Your task to perform on an android device: Show the shopping cart on ebay.com. Image 0: 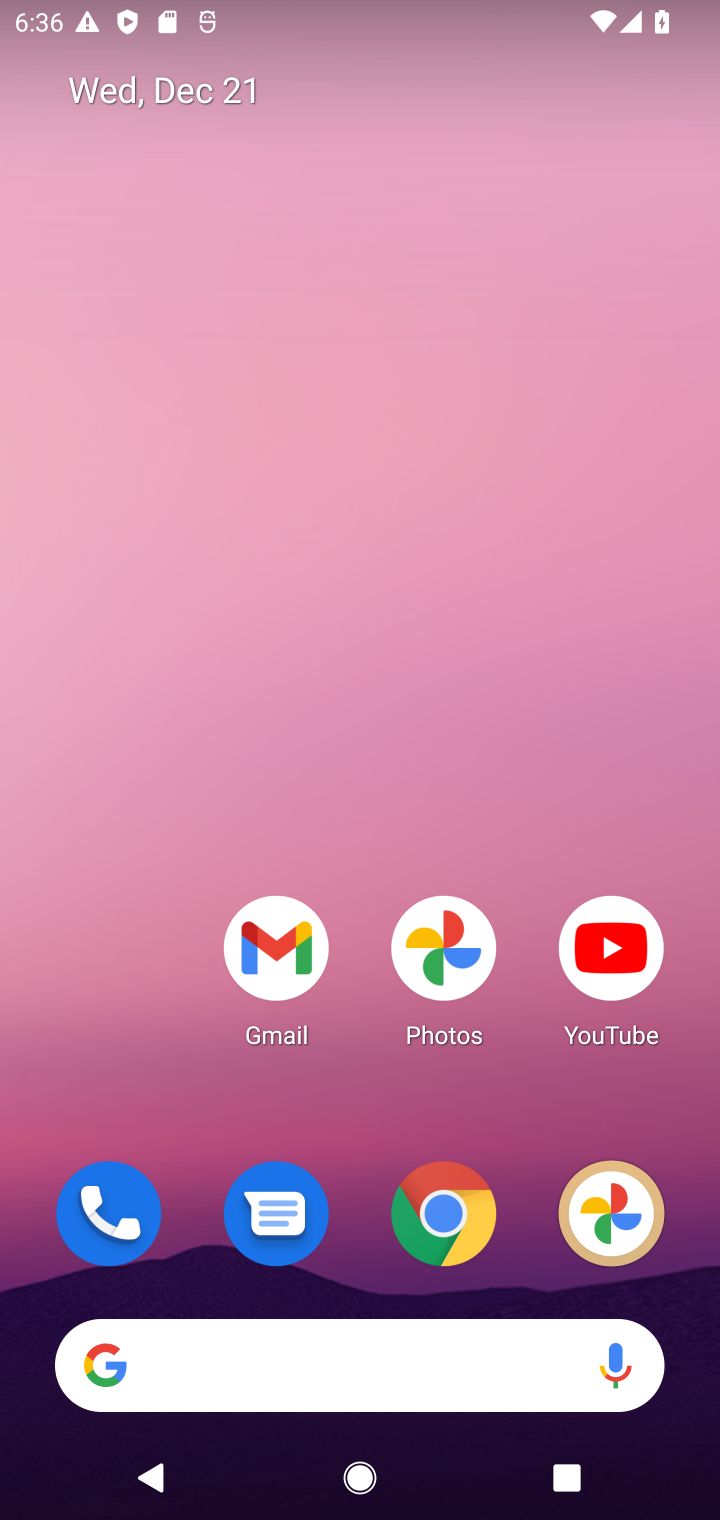
Step 0: click (436, 1256)
Your task to perform on an android device: Show the shopping cart on ebay.com. Image 1: 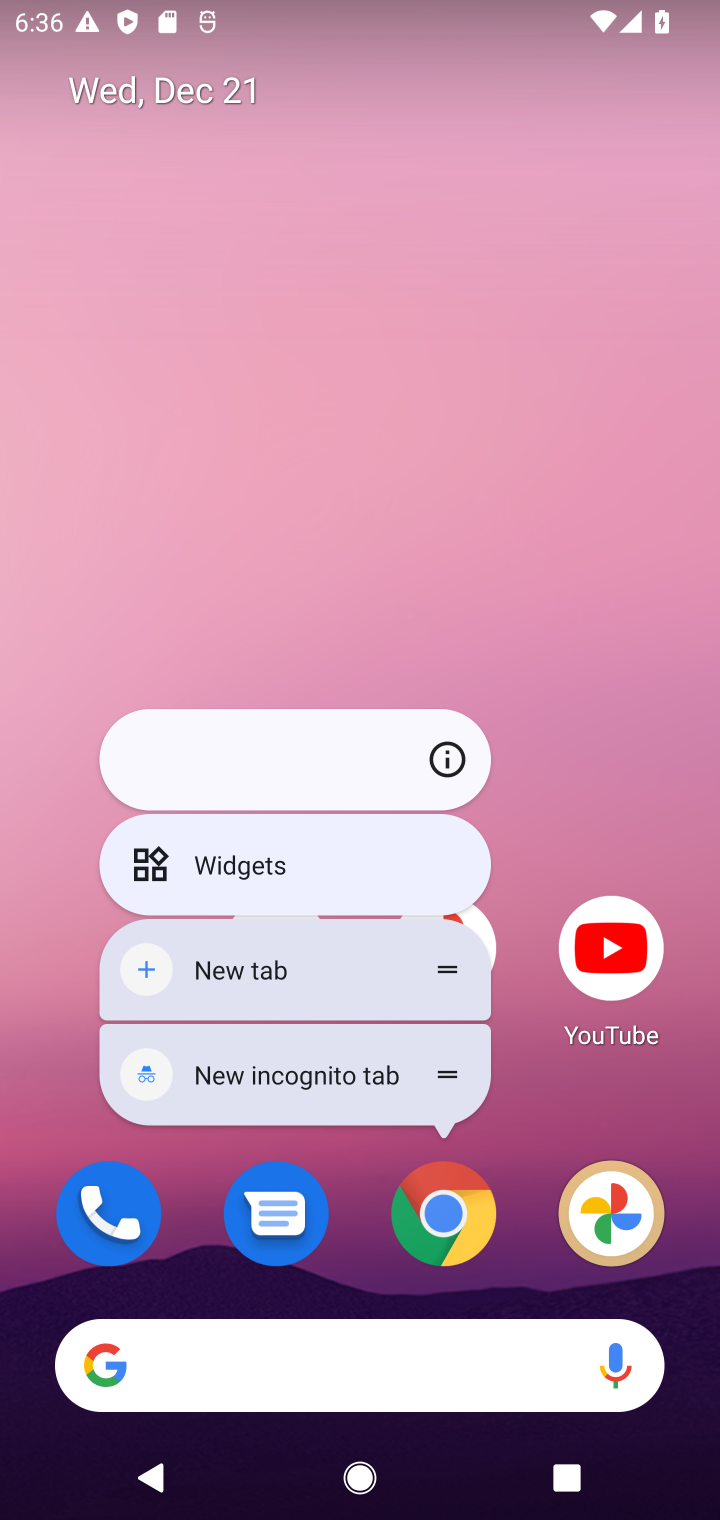
Step 1: click (436, 1256)
Your task to perform on an android device: Show the shopping cart on ebay.com. Image 2: 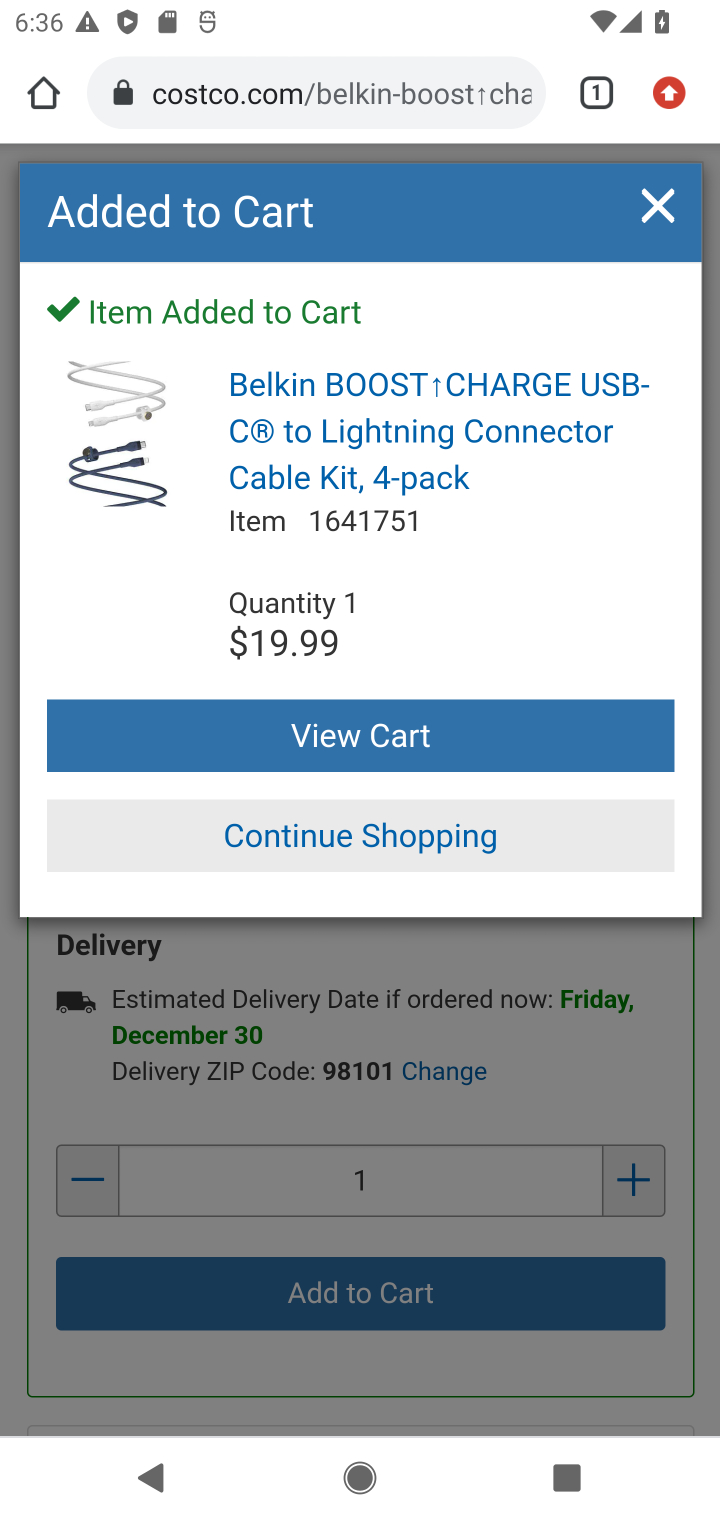
Step 2: click (313, 77)
Your task to perform on an android device: Show the shopping cart on ebay.com. Image 3: 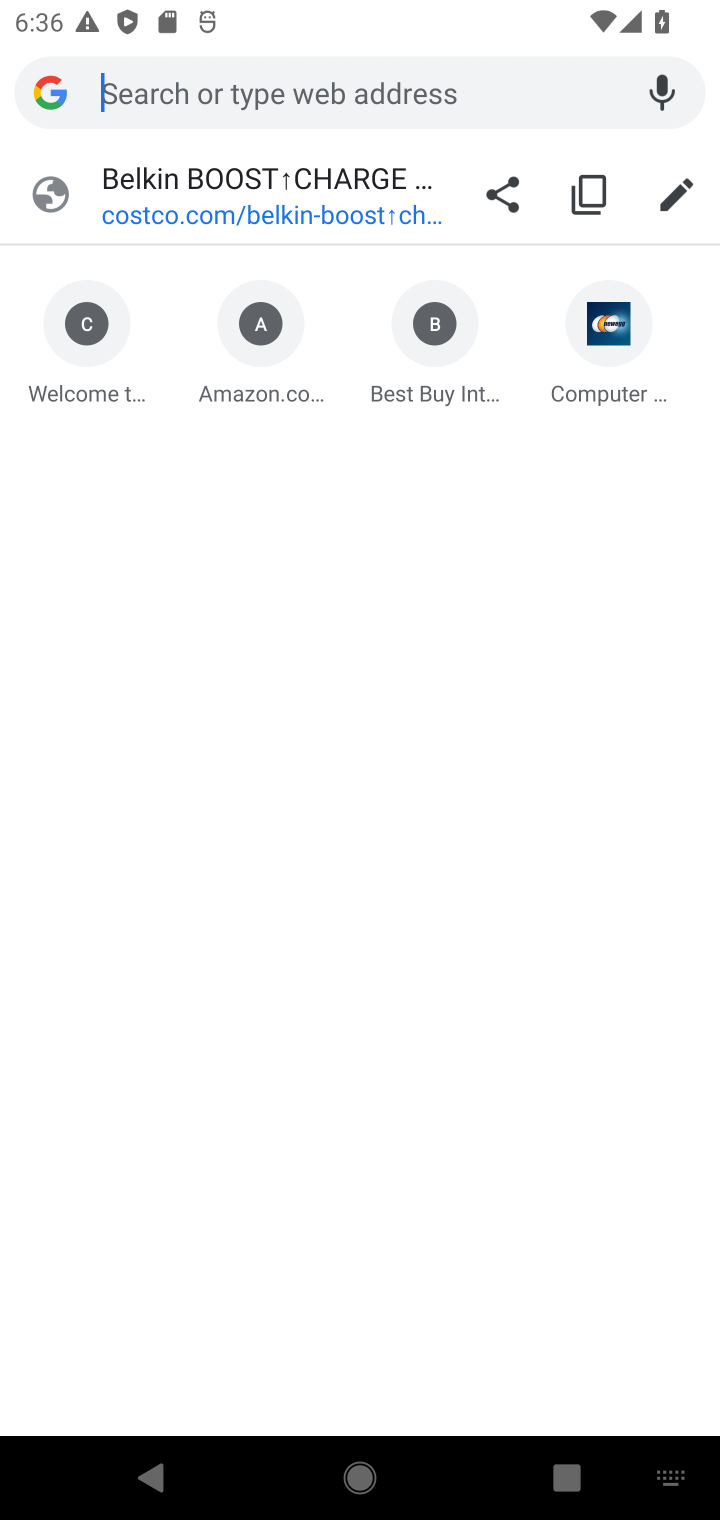
Step 3: type "ebay.com"
Your task to perform on an android device: Show the shopping cart on ebay.com. Image 4: 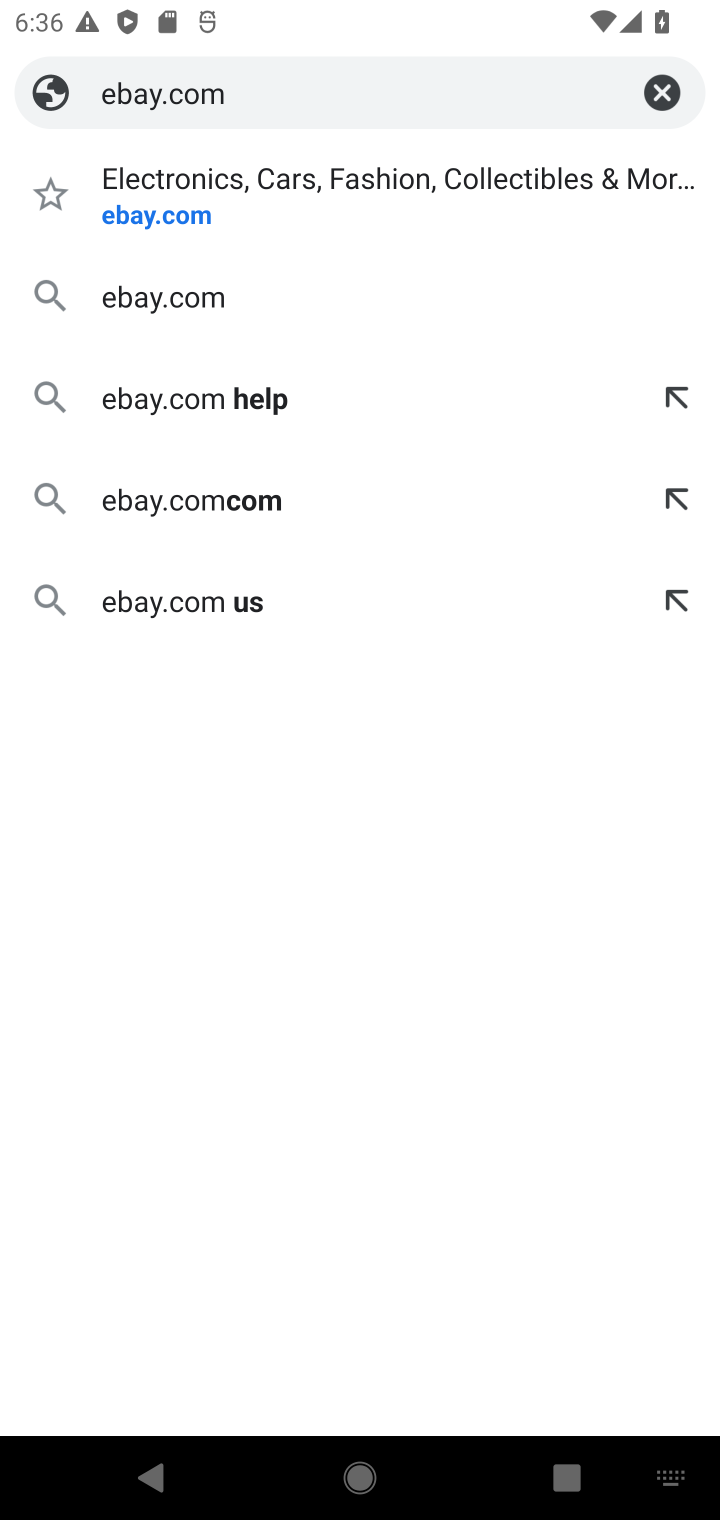
Step 4: click (214, 205)
Your task to perform on an android device: Show the shopping cart on ebay.com. Image 5: 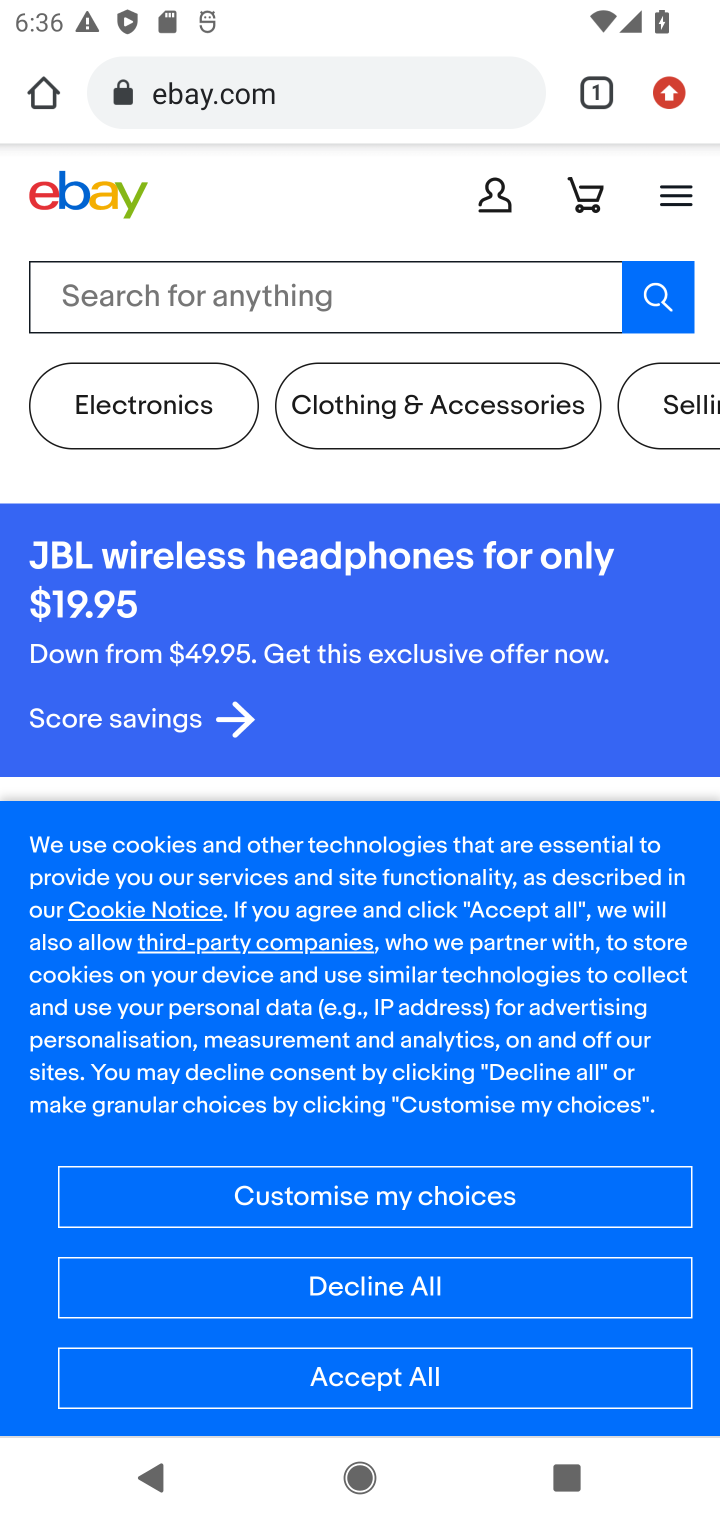
Step 5: click (157, 313)
Your task to perform on an android device: Show the shopping cart on ebay.com. Image 6: 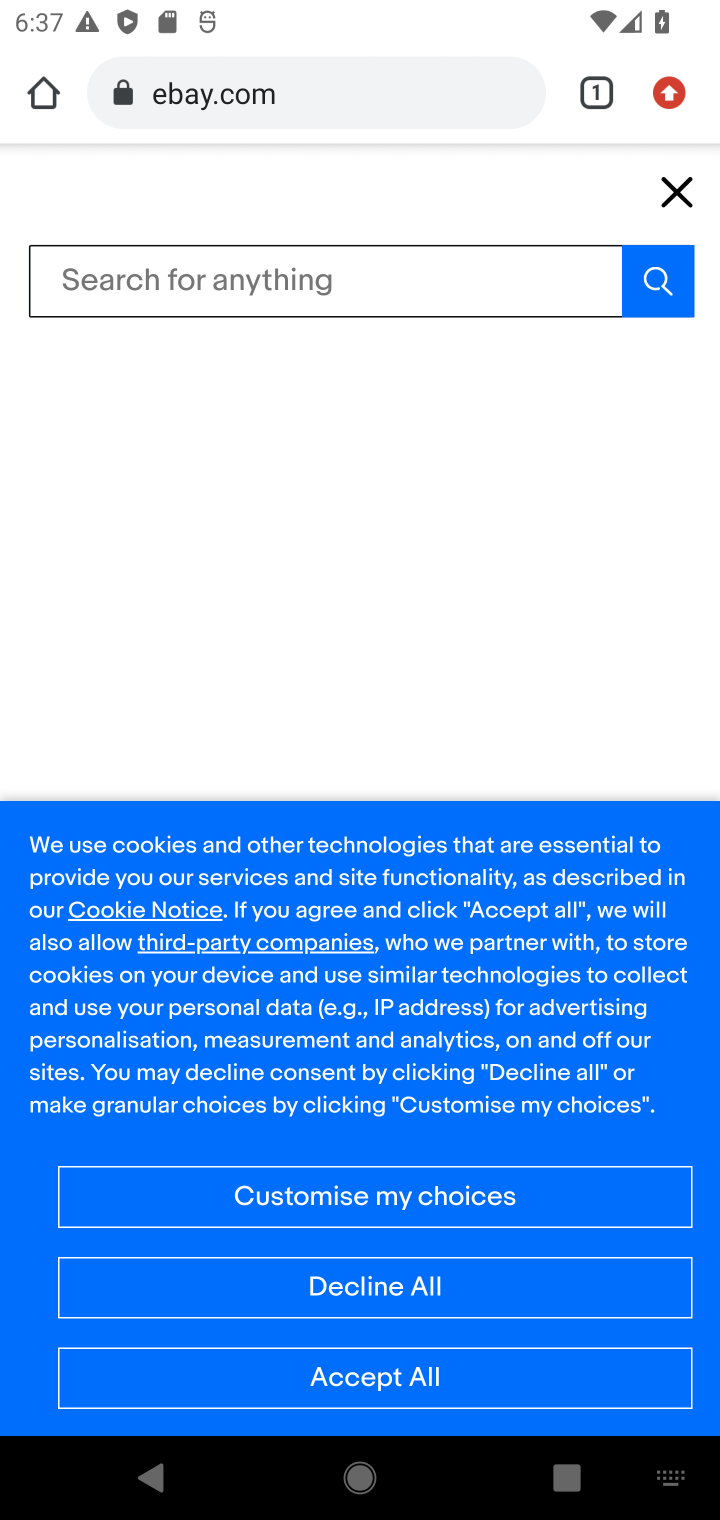
Step 6: click (429, 1377)
Your task to perform on an android device: Show the shopping cart on ebay.com. Image 7: 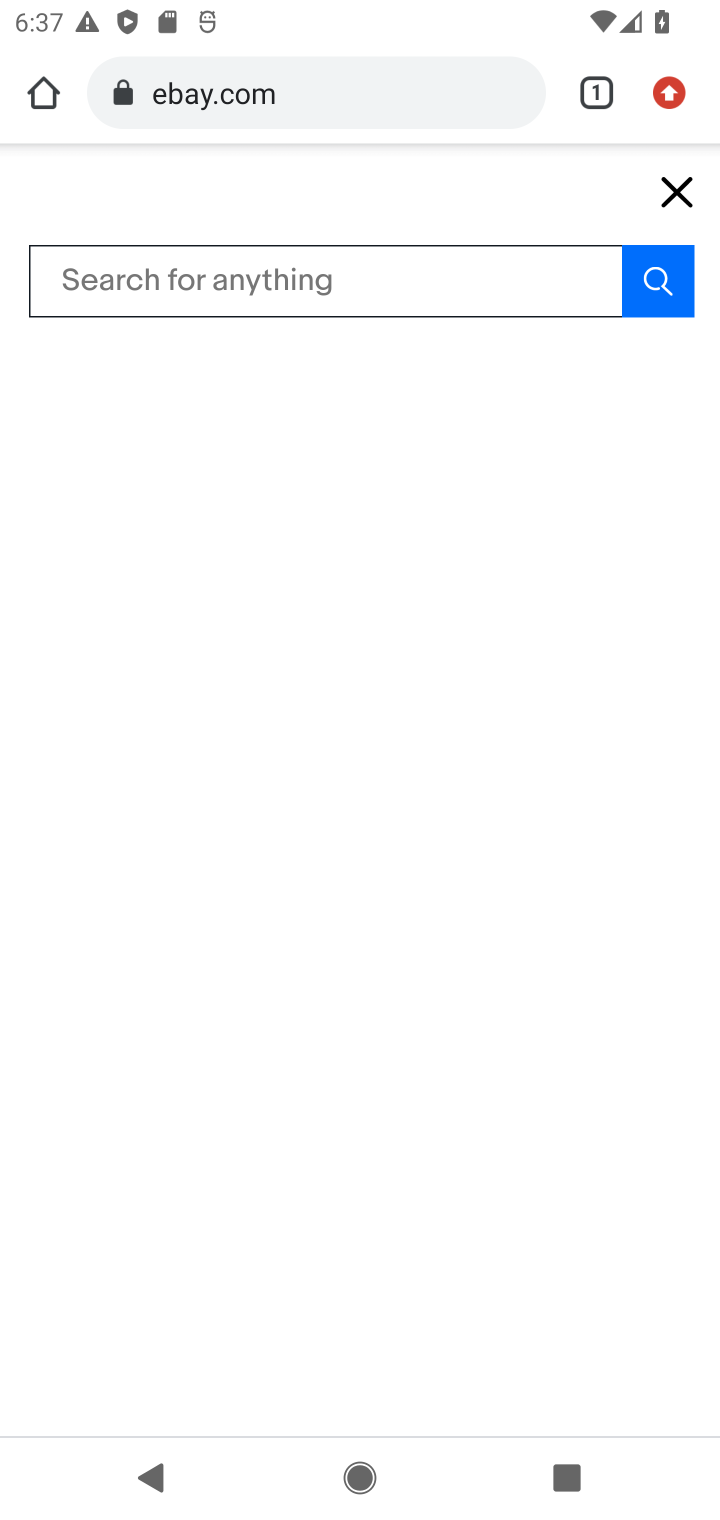
Step 7: click (677, 186)
Your task to perform on an android device: Show the shopping cart on ebay.com. Image 8: 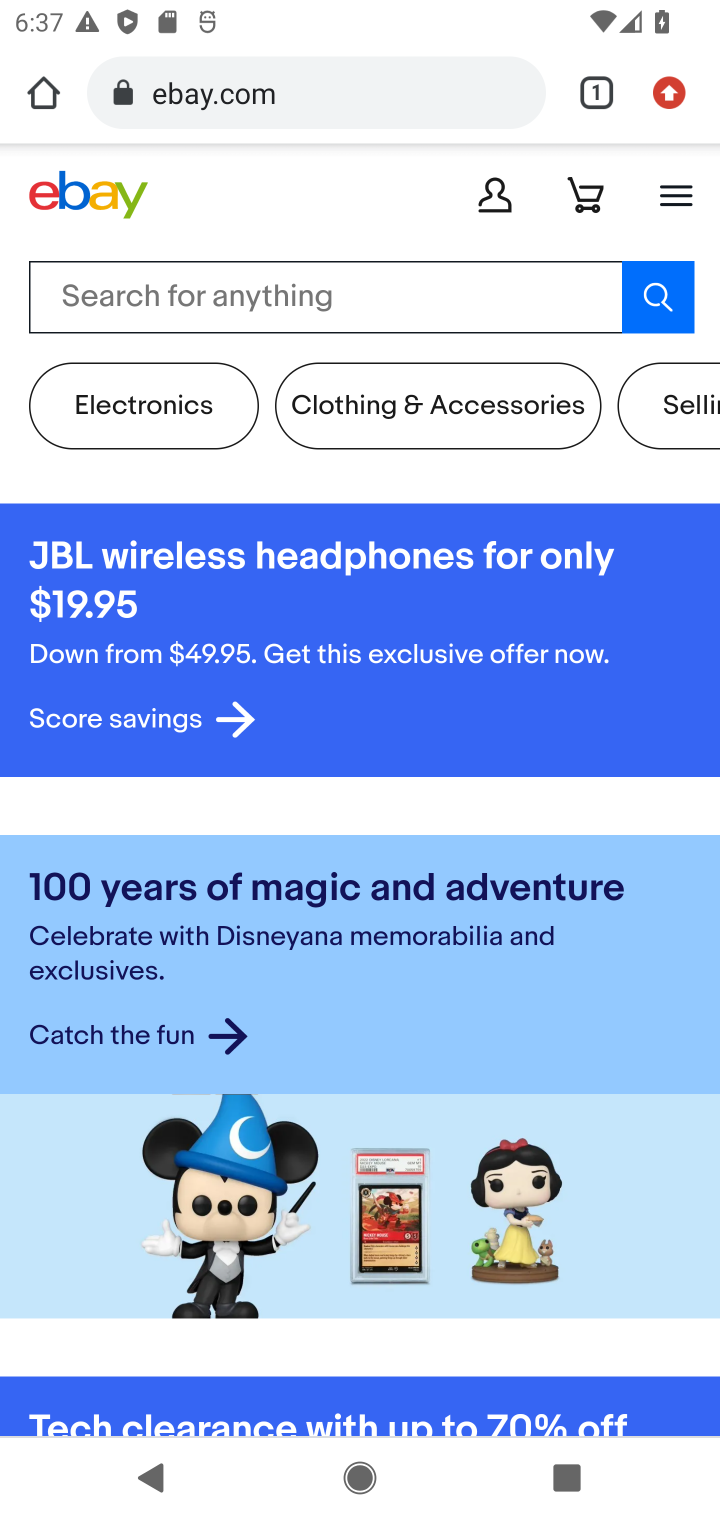
Step 8: click (593, 186)
Your task to perform on an android device: Show the shopping cart on ebay.com. Image 9: 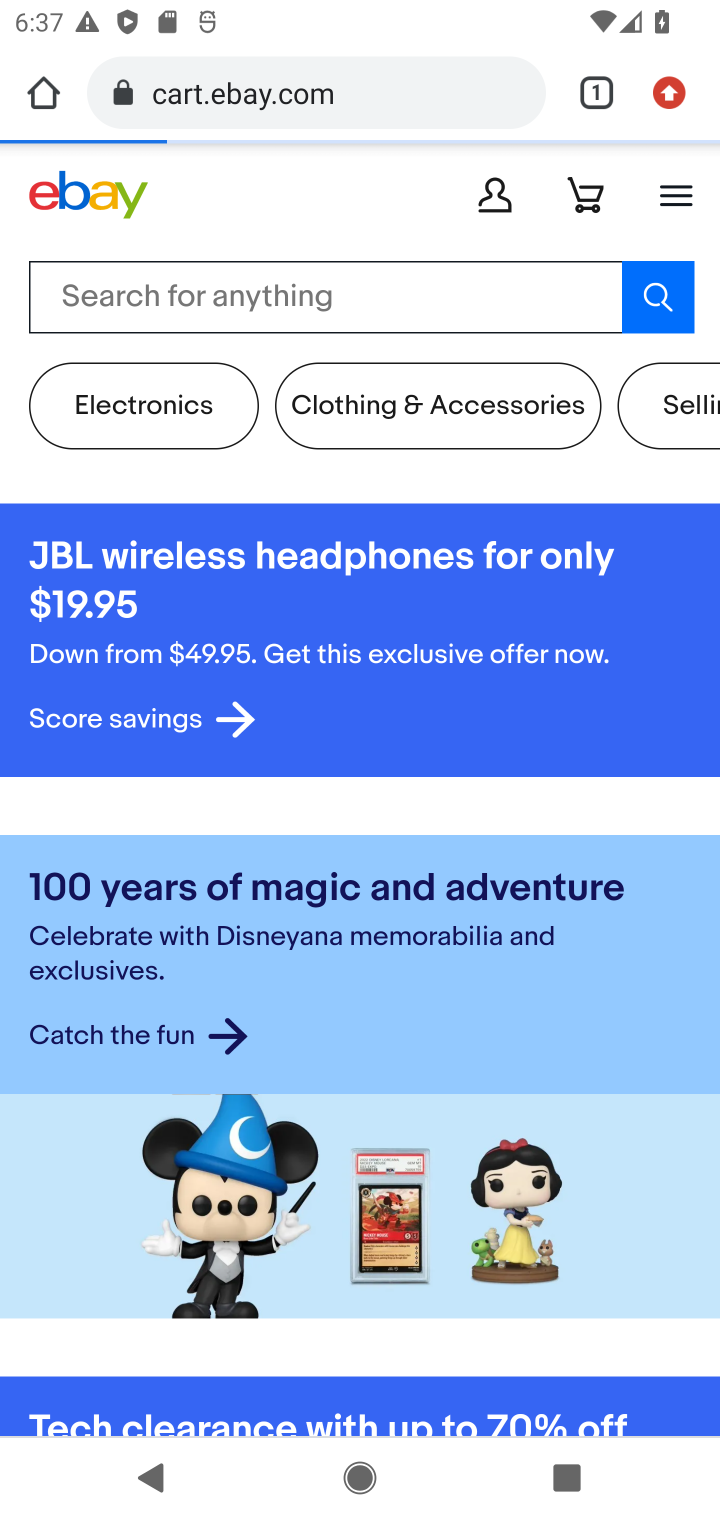
Step 9: task complete